Your task to perform on an android device: open a bookmark in the chrome app Image 0: 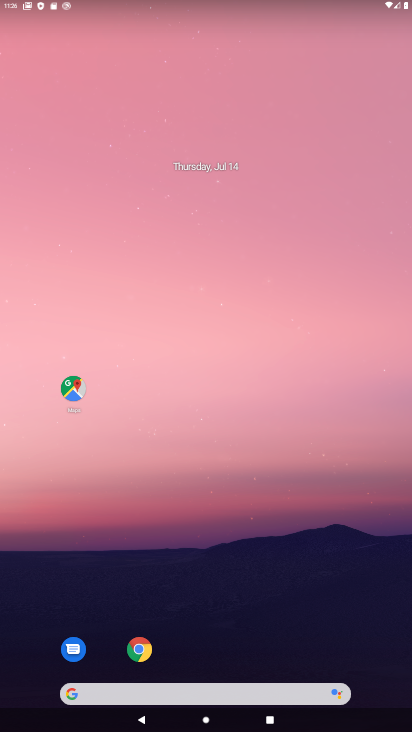
Step 0: drag from (210, 617) to (277, 104)
Your task to perform on an android device: open a bookmark in the chrome app Image 1: 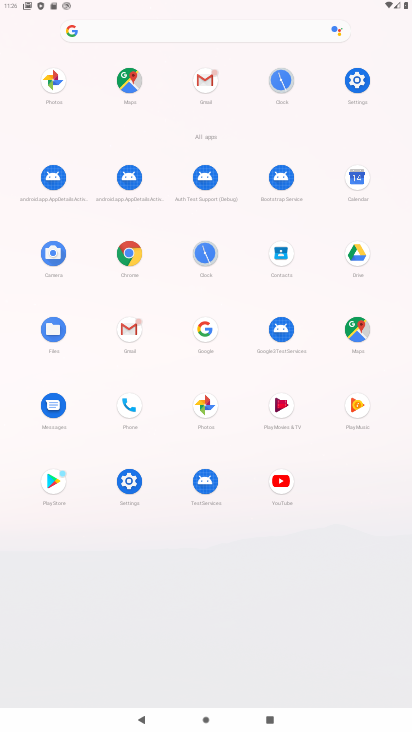
Step 1: click (131, 262)
Your task to perform on an android device: open a bookmark in the chrome app Image 2: 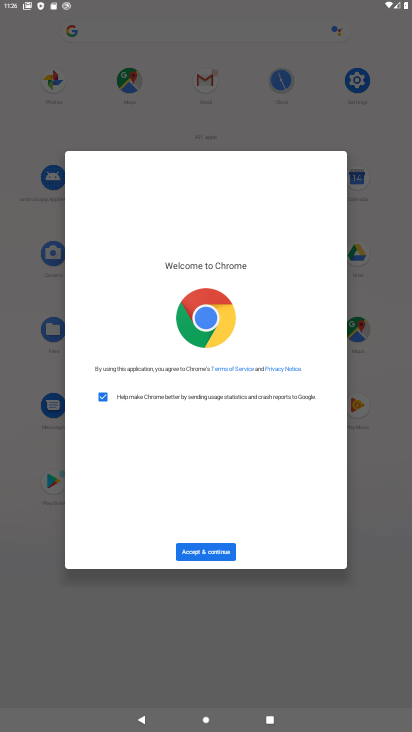
Step 2: click (220, 550)
Your task to perform on an android device: open a bookmark in the chrome app Image 3: 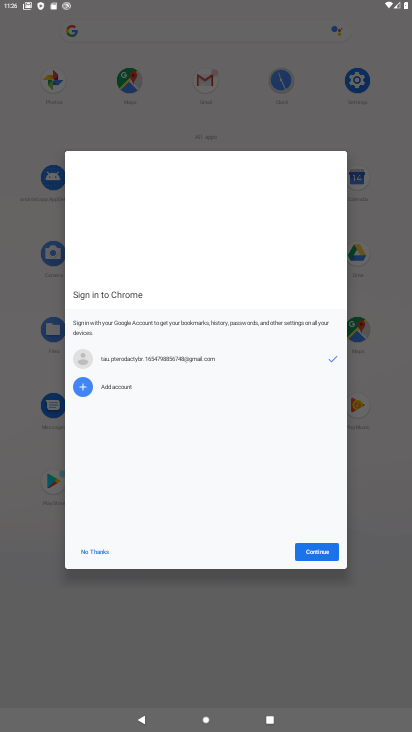
Step 3: click (314, 549)
Your task to perform on an android device: open a bookmark in the chrome app Image 4: 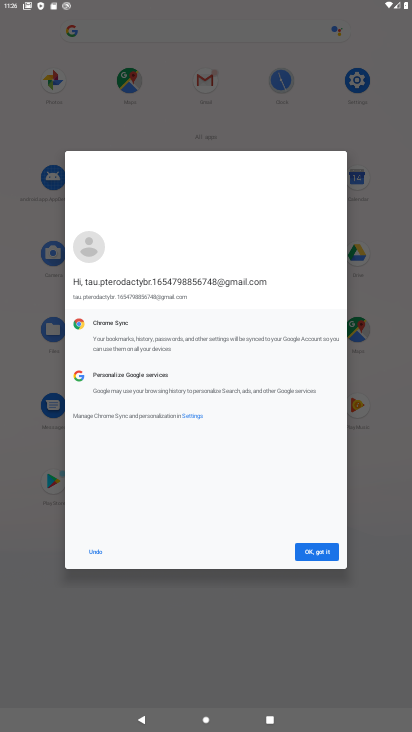
Step 4: click (327, 557)
Your task to perform on an android device: open a bookmark in the chrome app Image 5: 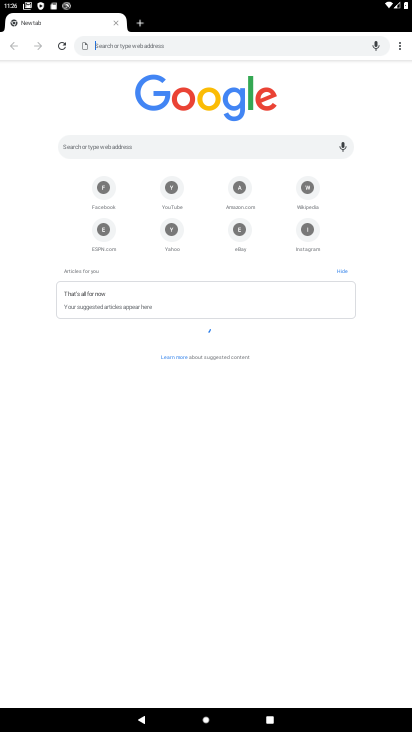
Step 5: drag from (404, 40) to (367, 91)
Your task to perform on an android device: open a bookmark in the chrome app Image 6: 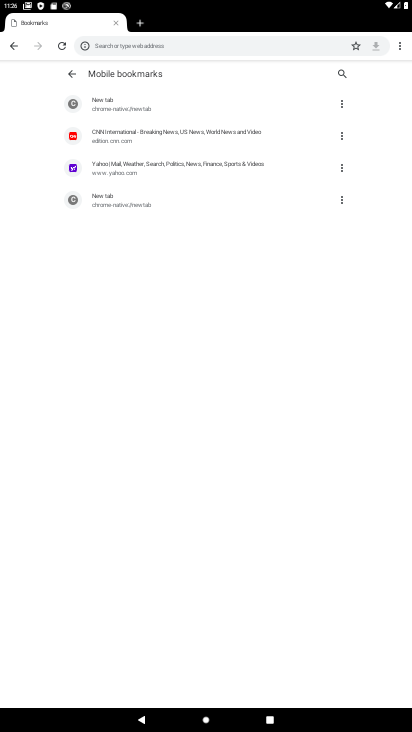
Step 6: click (186, 144)
Your task to perform on an android device: open a bookmark in the chrome app Image 7: 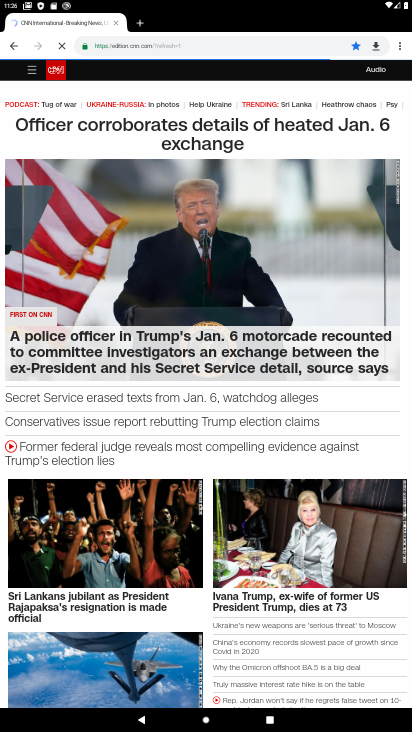
Step 7: task complete